Your task to perform on an android device: toggle notifications settings in the gmail app Image 0: 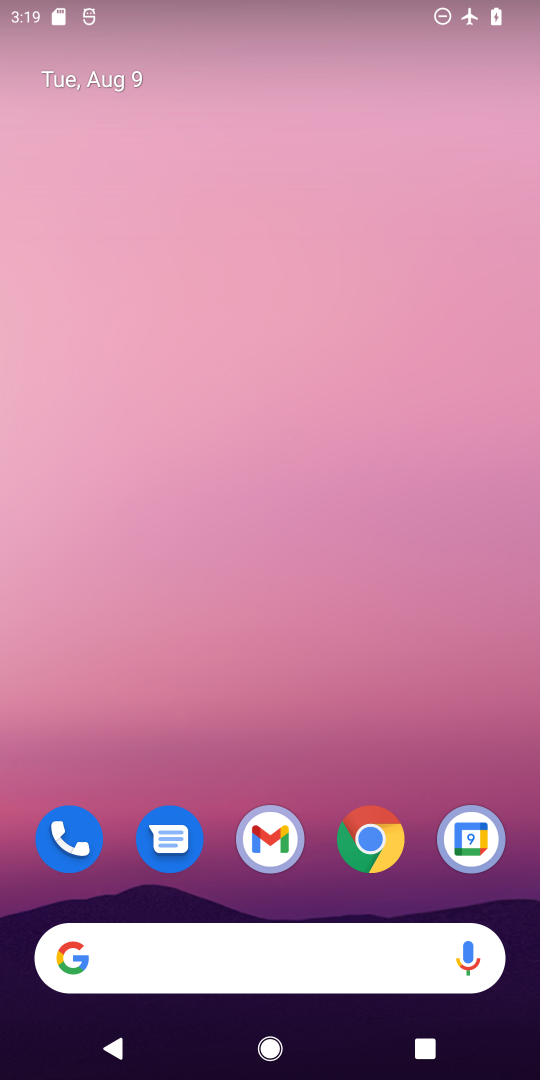
Step 0: press home button
Your task to perform on an android device: toggle notifications settings in the gmail app Image 1: 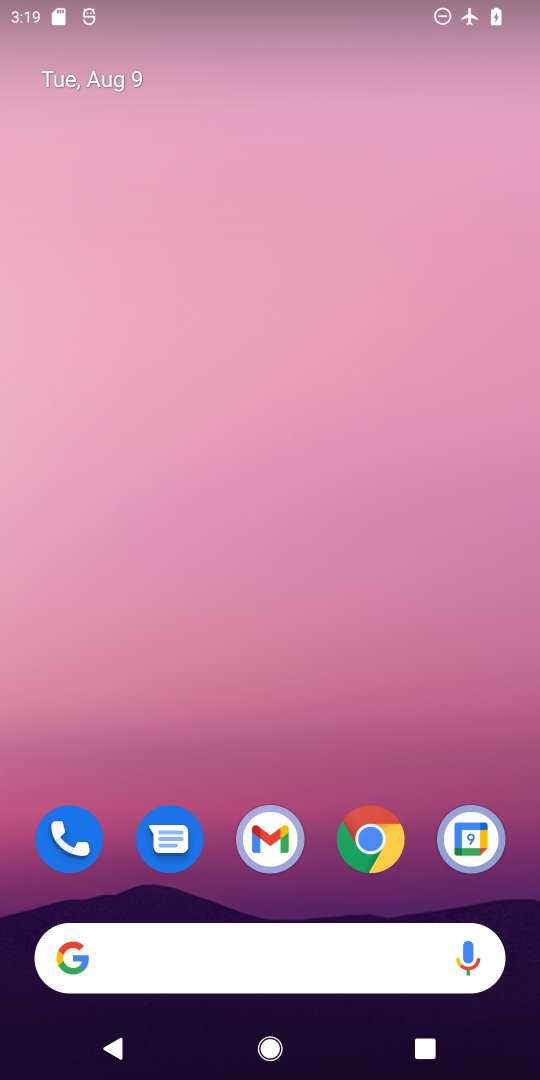
Step 1: press home button
Your task to perform on an android device: toggle notifications settings in the gmail app Image 2: 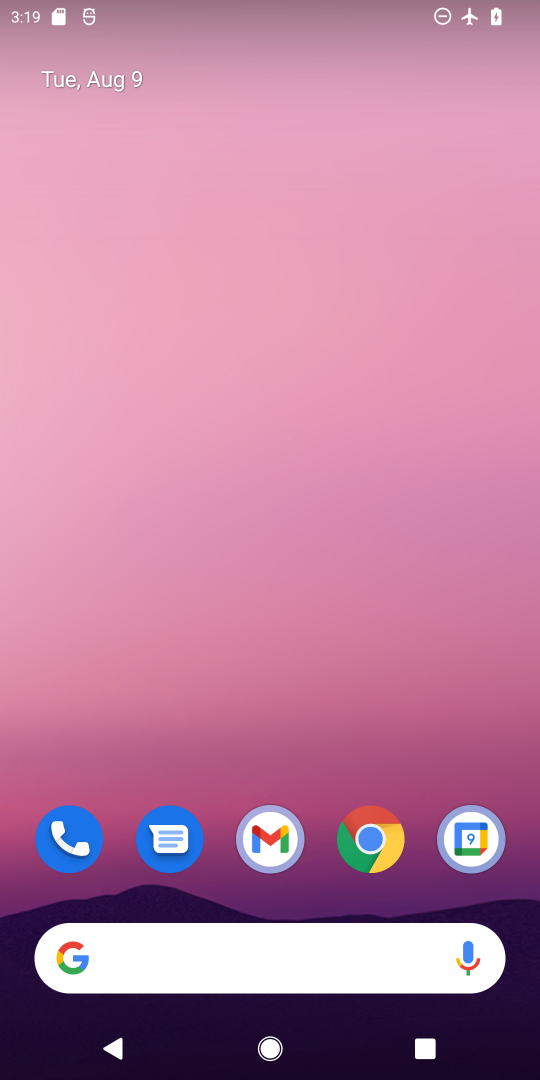
Step 2: drag from (289, 740) to (537, 763)
Your task to perform on an android device: toggle notifications settings in the gmail app Image 3: 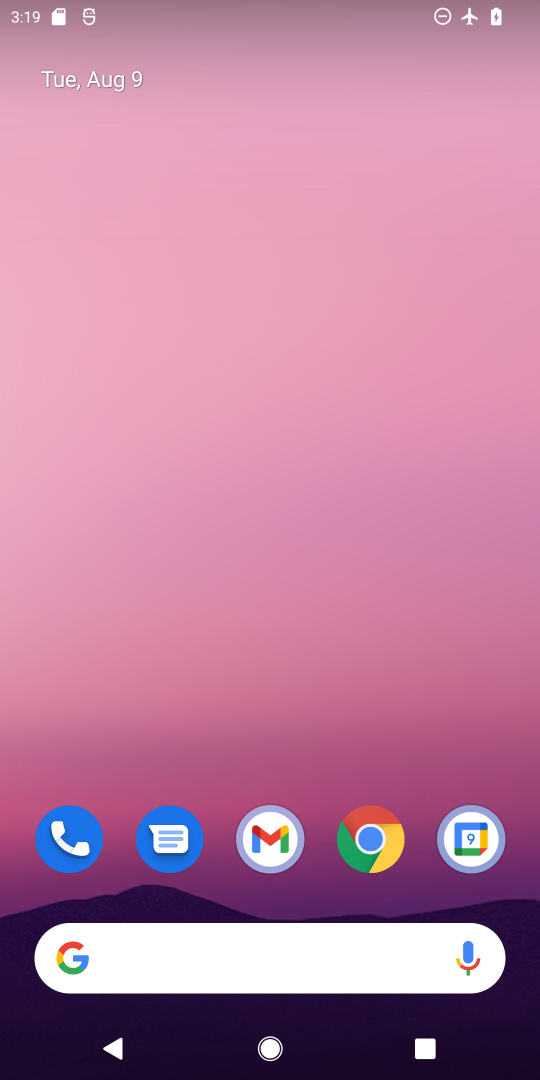
Step 3: drag from (207, 886) to (150, 127)
Your task to perform on an android device: toggle notifications settings in the gmail app Image 4: 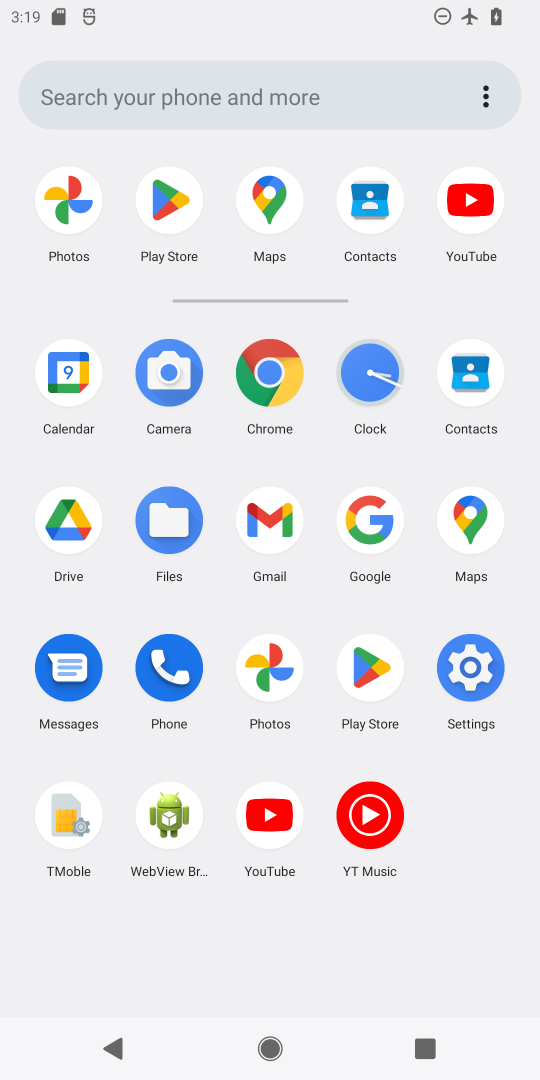
Step 4: click (460, 649)
Your task to perform on an android device: toggle notifications settings in the gmail app Image 5: 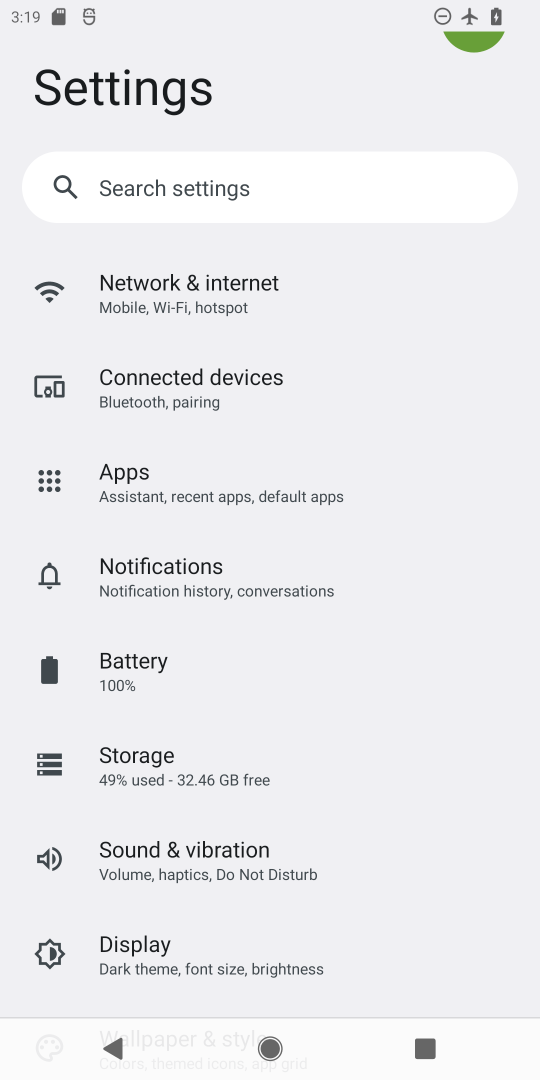
Step 5: press back button
Your task to perform on an android device: toggle notifications settings in the gmail app Image 6: 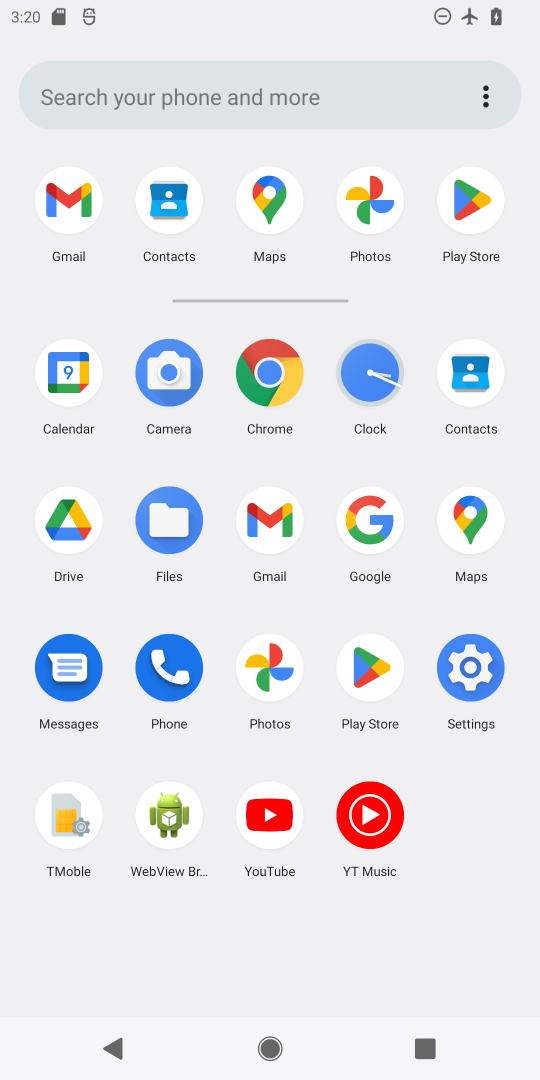
Step 6: click (80, 207)
Your task to perform on an android device: toggle notifications settings in the gmail app Image 7: 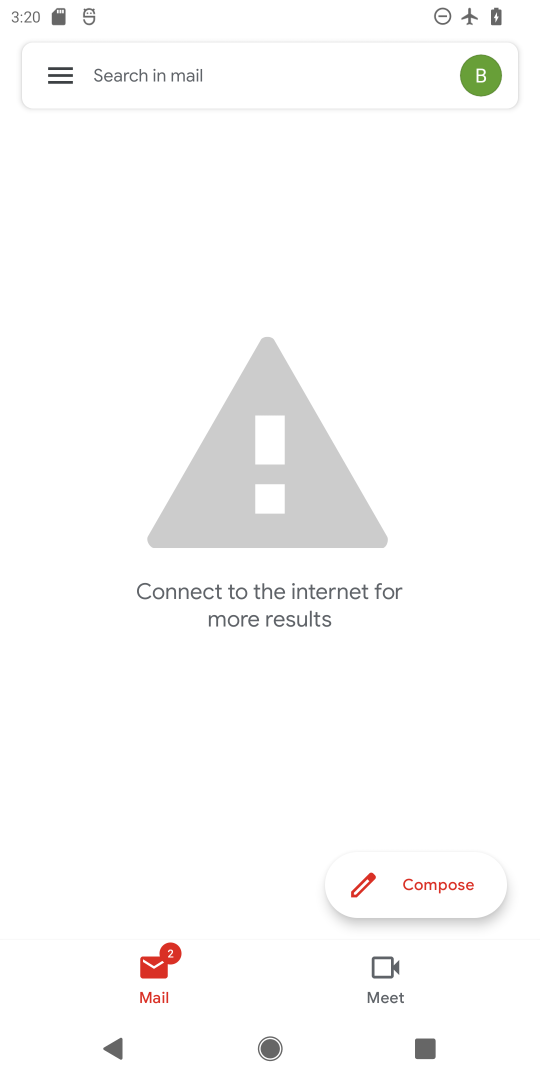
Step 7: click (489, 74)
Your task to perform on an android device: toggle notifications settings in the gmail app Image 8: 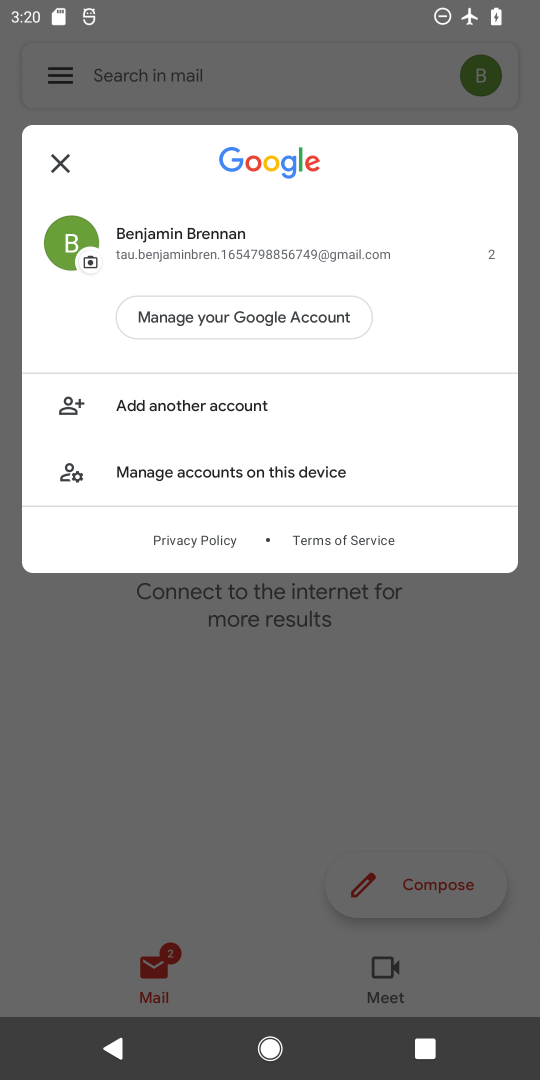
Step 8: click (261, 683)
Your task to perform on an android device: toggle notifications settings in the gmail app Image 9: 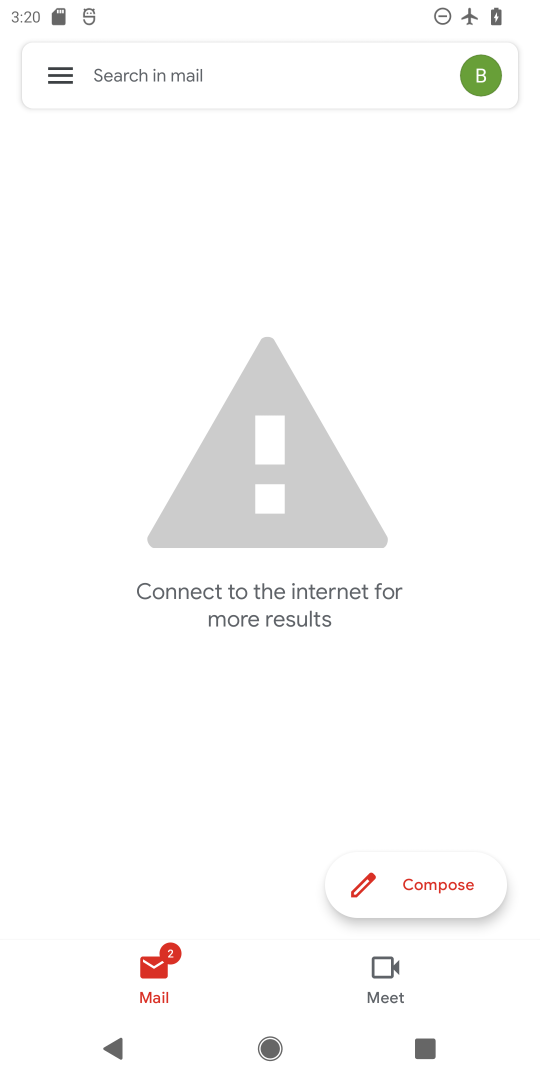
Step 9: click (67, 78)
Your task to perform on an android device: toggle notifications settings in the gmail app Image 10: 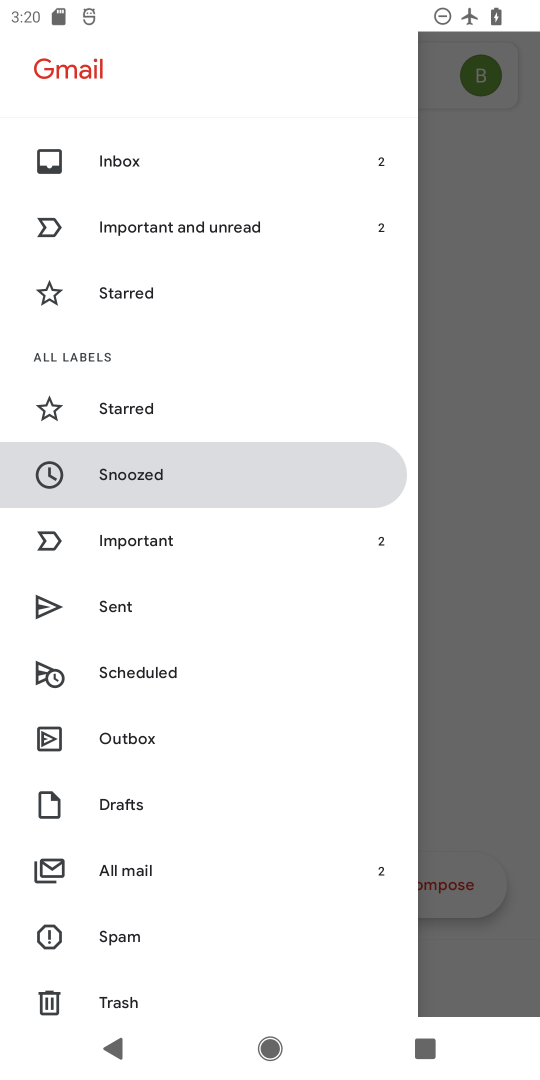
Step 10: drag from (158, 969) to (86, 457)
Your task to perform on an android device: toggle notifications settings in the gmail app Image 11: 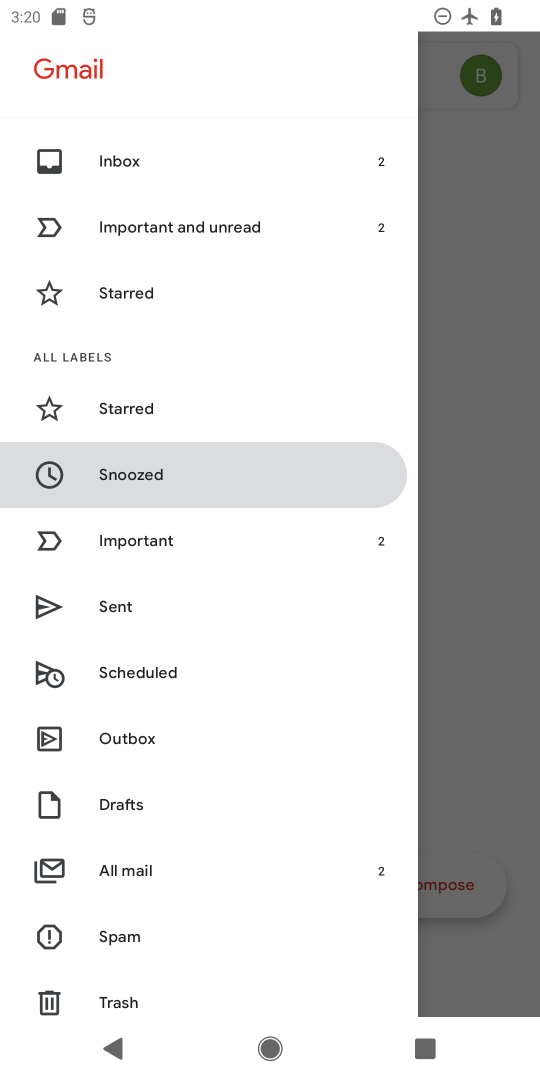
Step 11: drag from (184, 950) to (237, 333)
Your task to perform on an android device: toggle notifications settings in the gmail app Image 12: 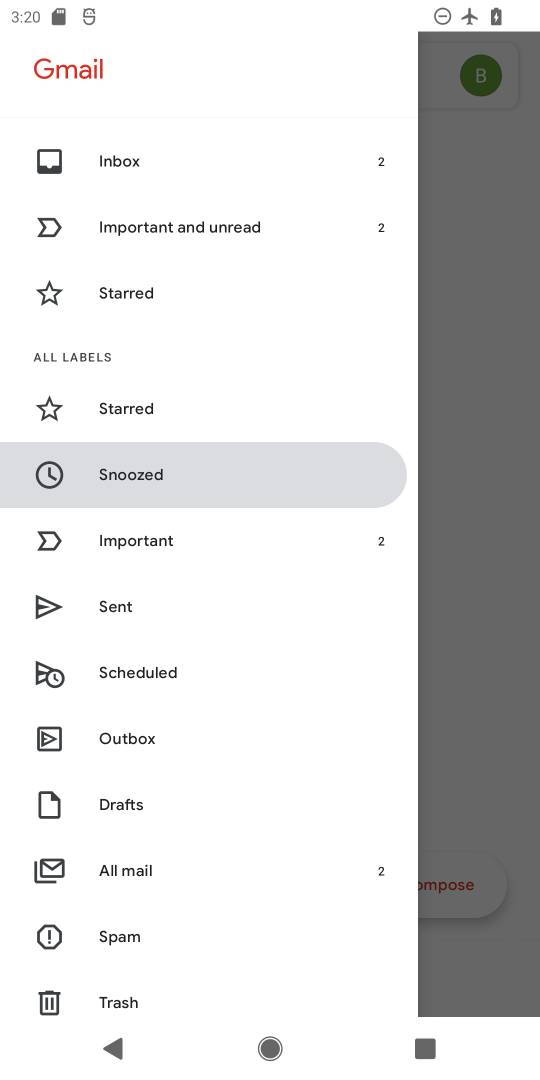
Step 12: drag from (295, 365) to (487, 16)
Your task to perform on an android device: toggle notifications settings in the gmail app Image 13: 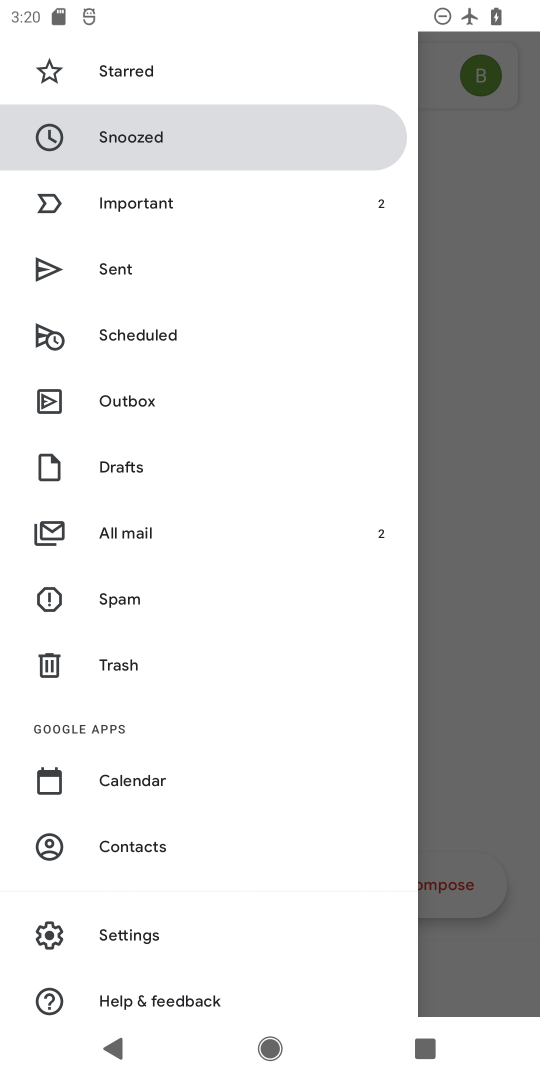
Step 13: click (141, 935)
Your task to perform on an android device: toggle notifications settings in the gmail app Image 14: 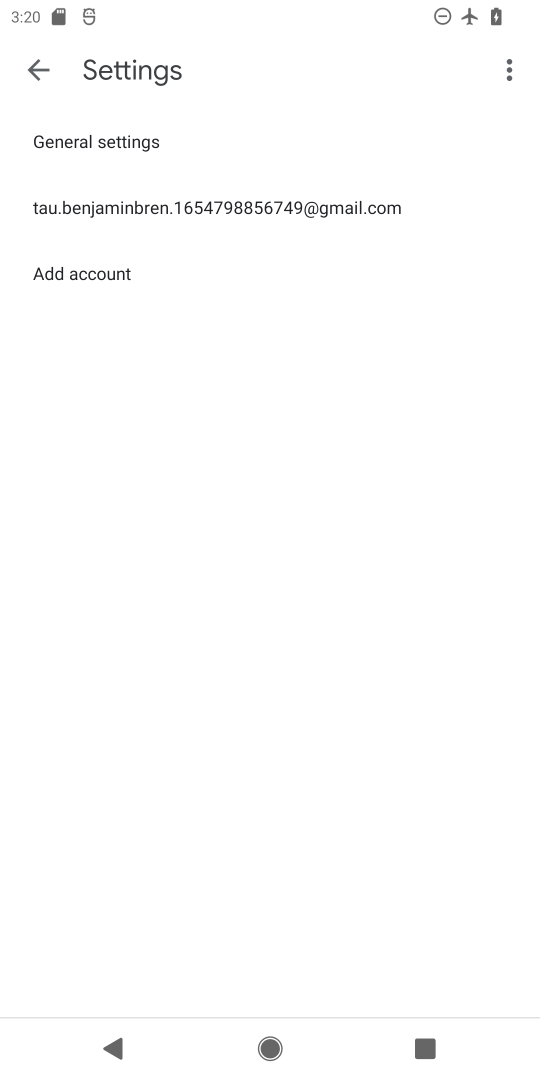
Step 14: click (136, 203)
Your task to perform on an android device: toggle notifications settings in the gmail app Image 15: 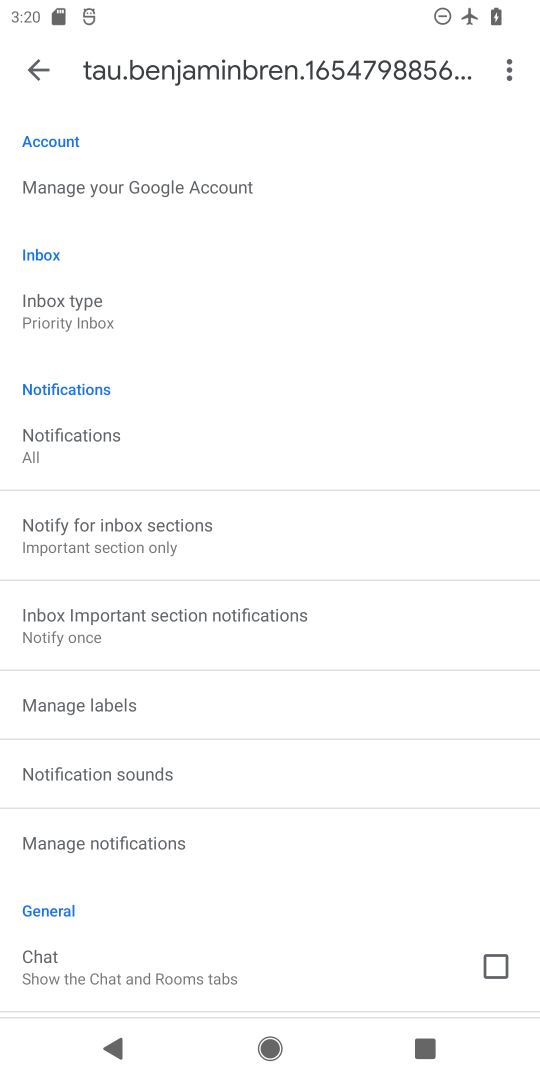
Step 15: drag from (174, 922) to (184, 319)
Your task to perform on an android device: toggle notifications settings in the gmail app Image 16: 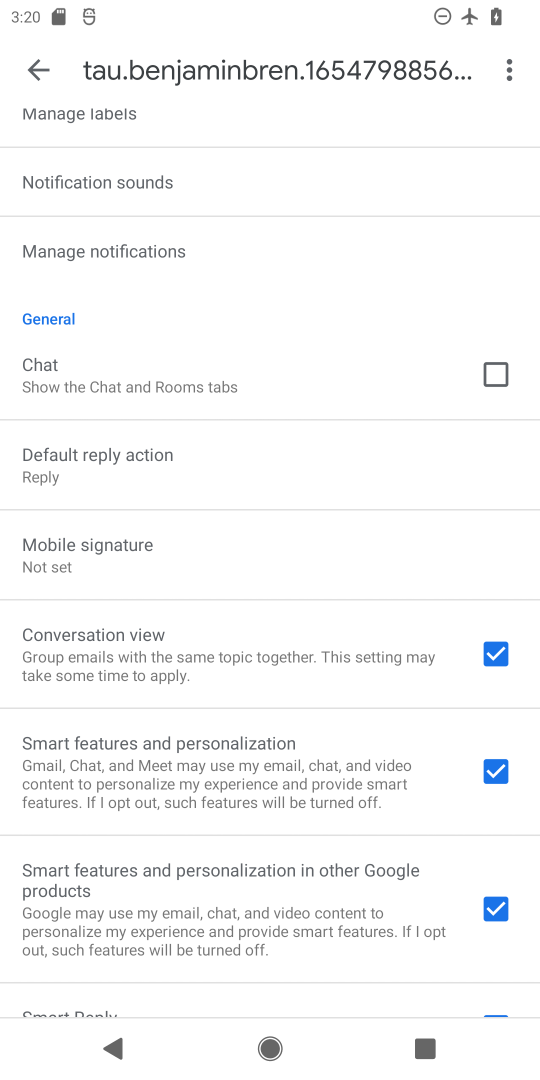
Step 16: click (111, 256)
Your task to perform on an android device: toggle notifications settings in the gmail app Image 17: 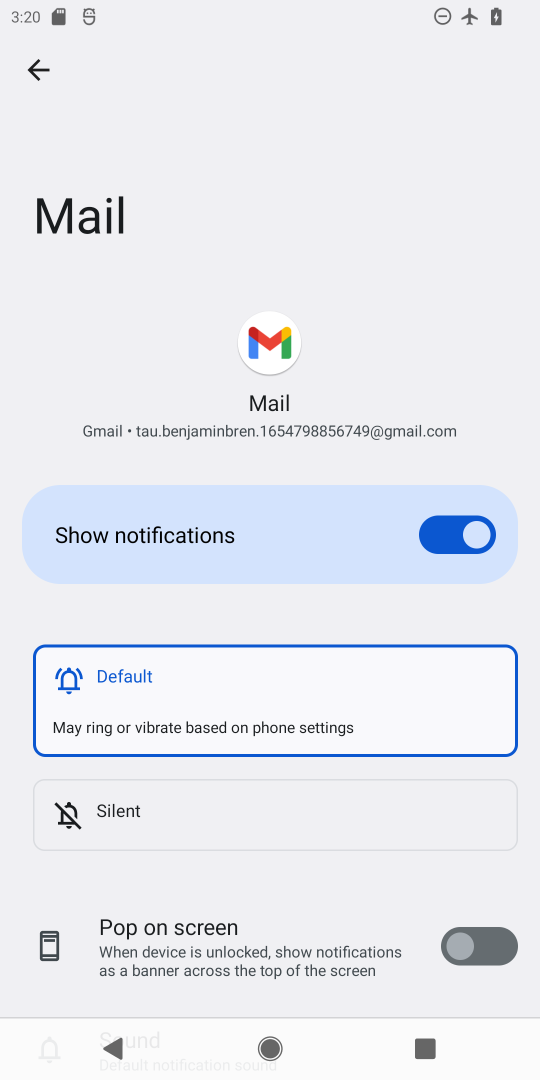
Step 17: click (455, 520)
Your task to perform on an android device: toggle notifications settings in the gmail app Image 18: 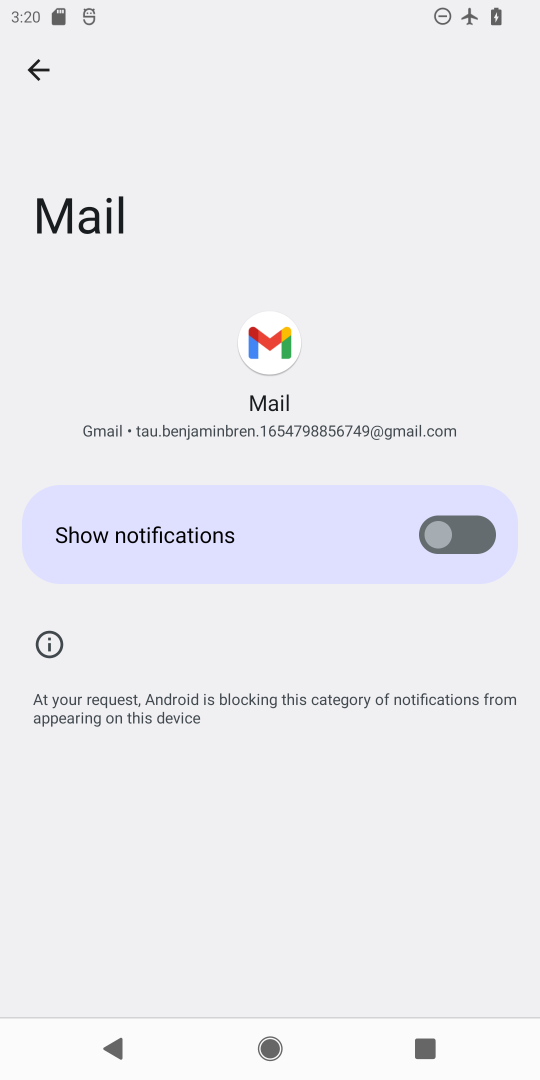
Step 18: task complete